Your task to perform on an android device: change the upload size in google photos Image 0: 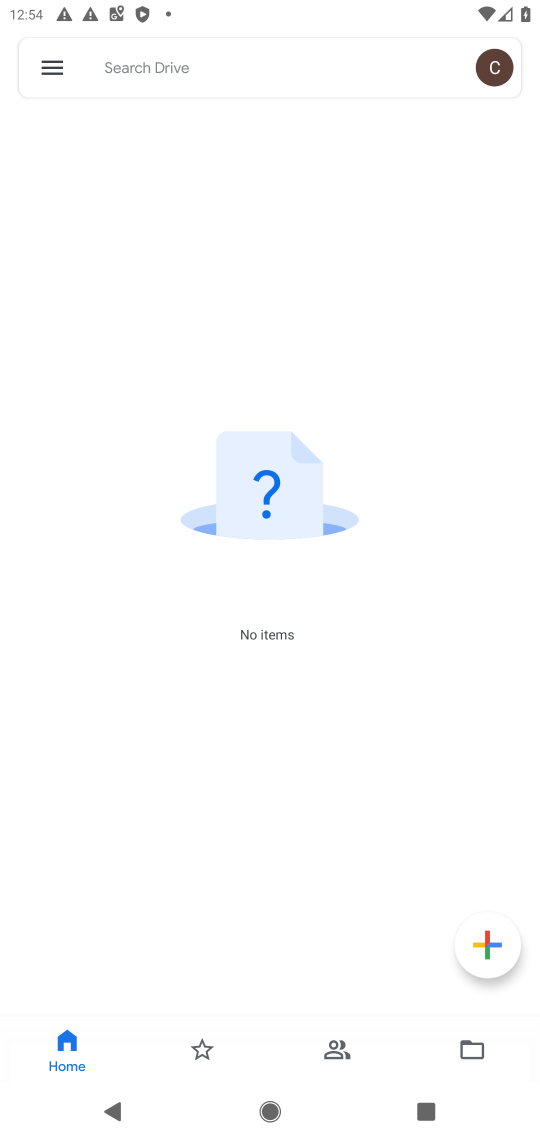
Step 0: press home button
Your task to perform on an android device: change the upload size in google photos Image 1: 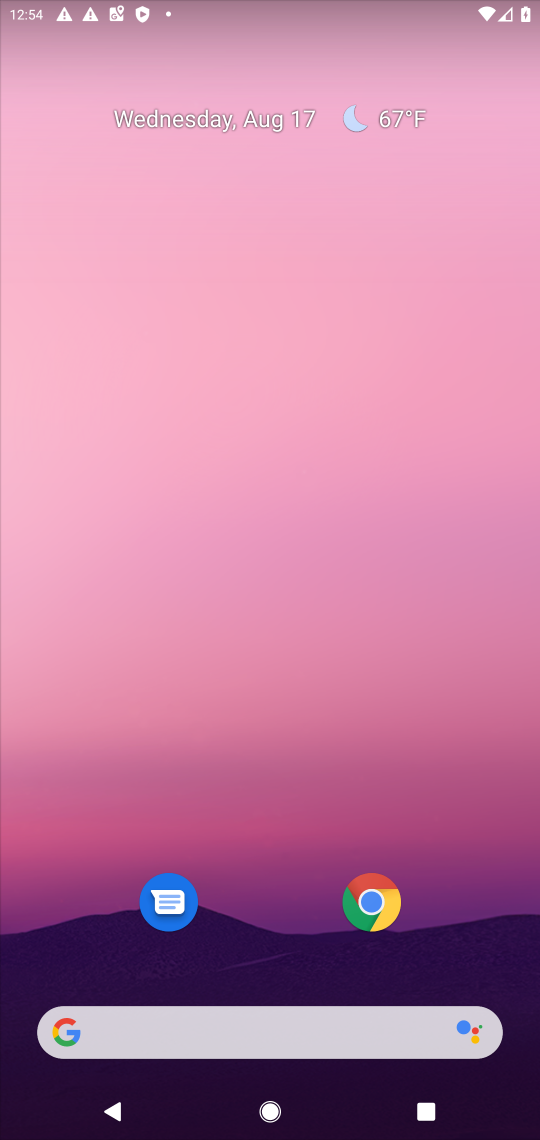
Step 1: drag from (241, 945) to (269, 89)
Your task to perform on an android device: change the upload size in google photos Image 2: 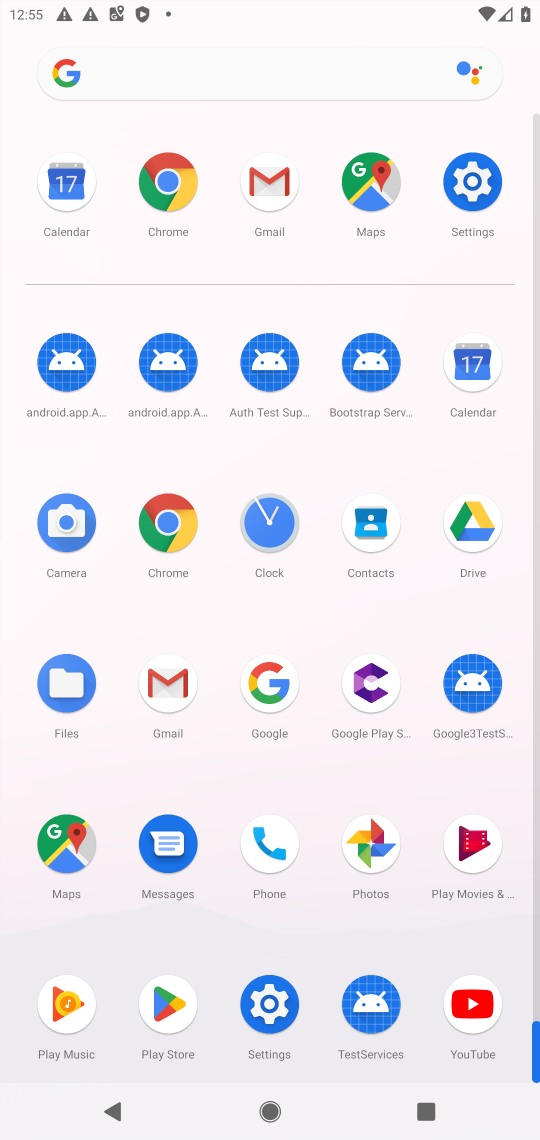
Step 2: click (370, 833)
Your task to perform on an android device: change the upload size in google photos Image 3: 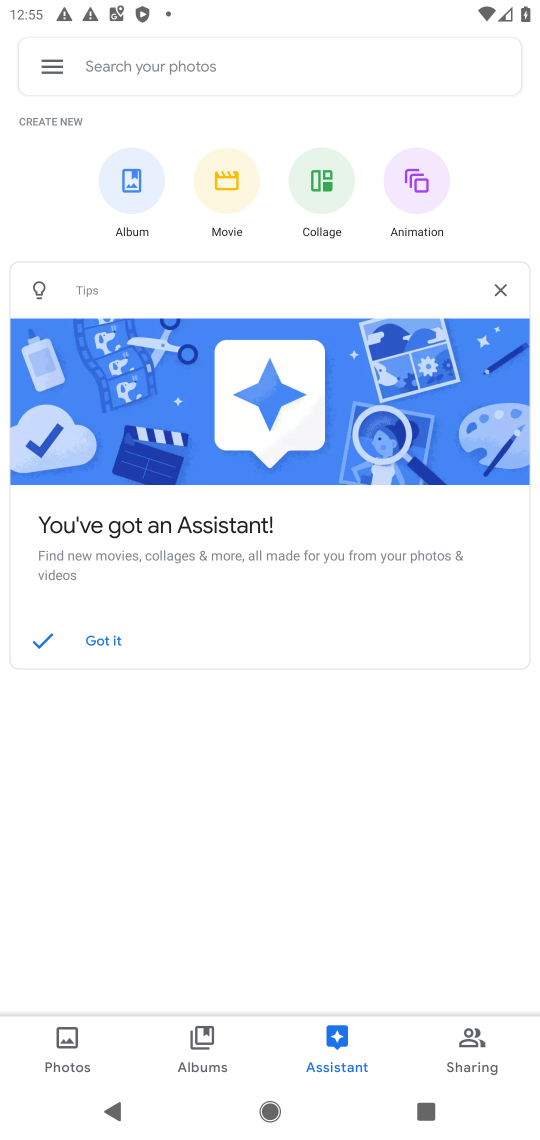
Step 3: click (72, 1034)
Your task to perform on an android device: change the upload size in google photos Image 4: 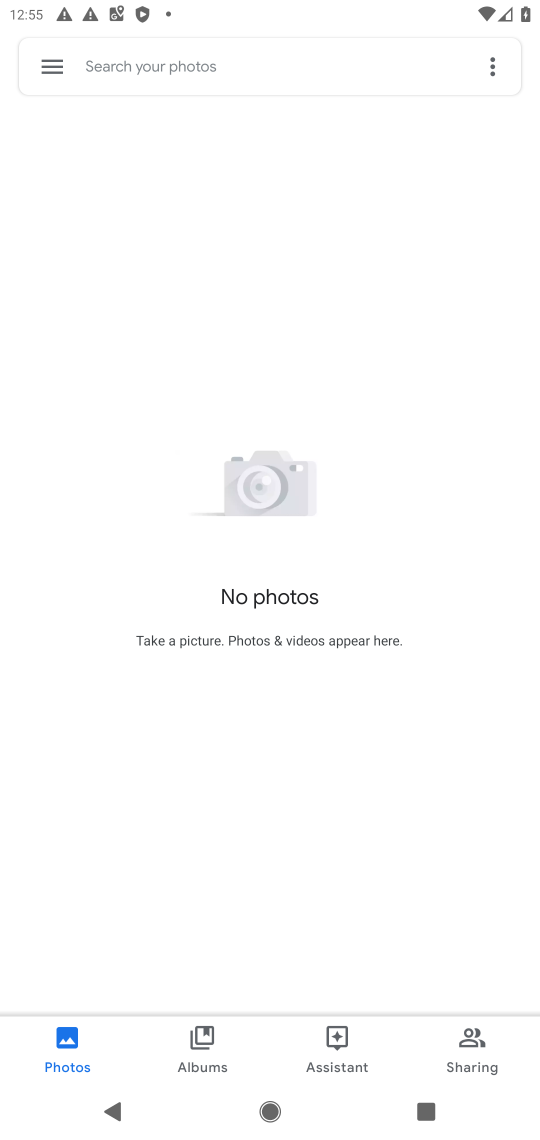
Step 4: click (60, 64)
Your task to perform on an android device: change the upload size in google photos Image 5: 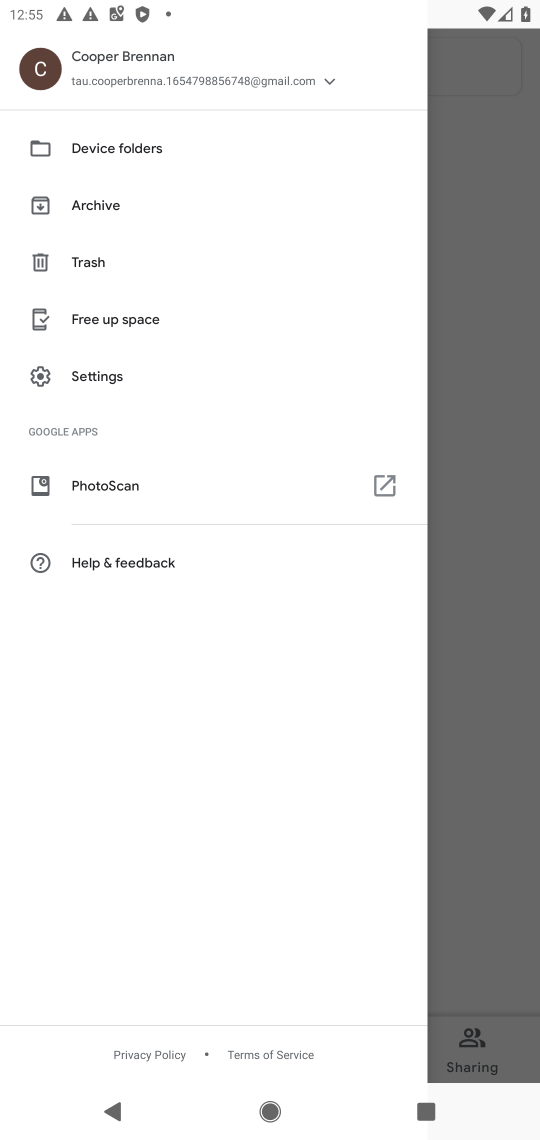
Step 5: click (119, 379)
Your task to perform on an android device: change the upload size in google photos Image 6: 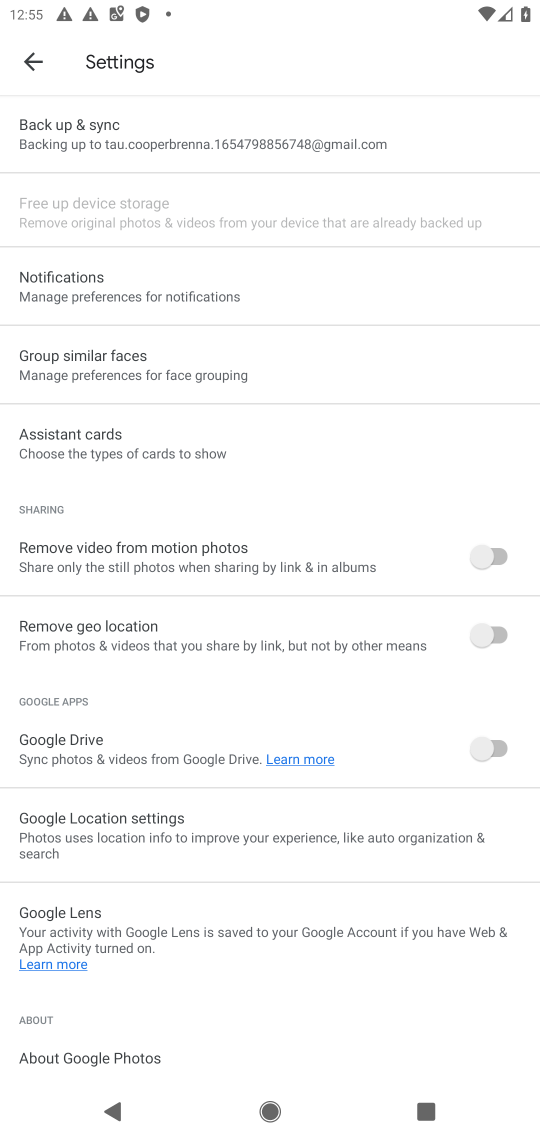
Step 6: click (127, 127)
Your task to perform on an android device: change the upload size in google photos Image 7: 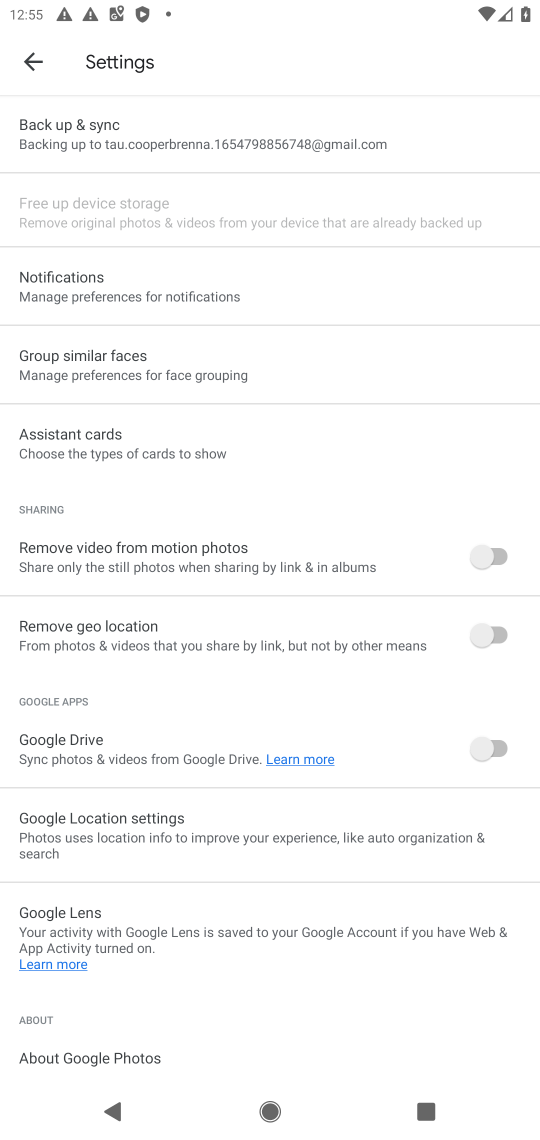
Step 7: click (127, 127)
Your task to perform on an android device: change the upload size in google photos Image 8: 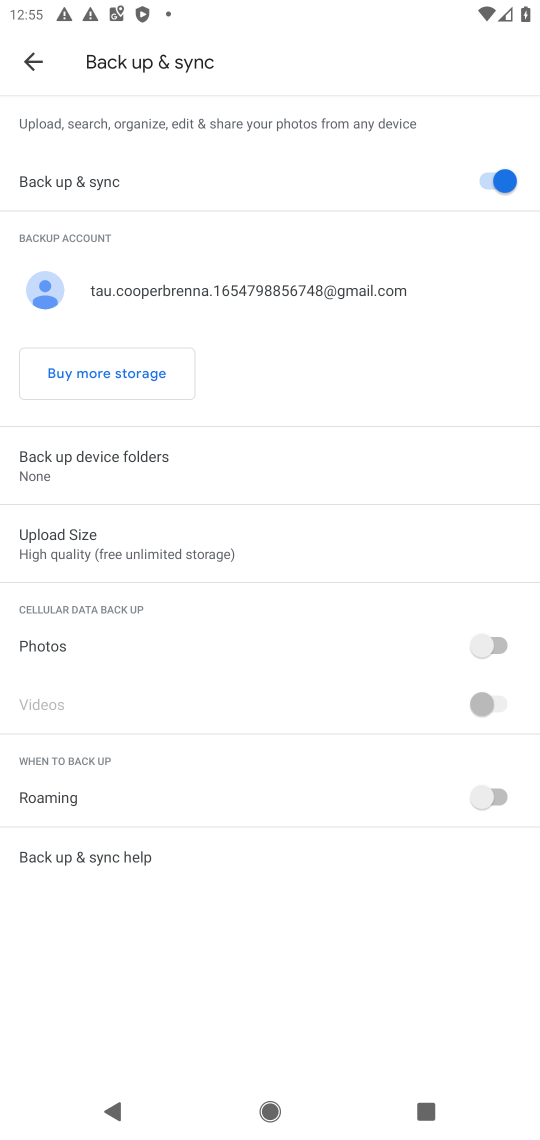
Step 8: click (168, 532)
Your task to perform on an android device: change the upload size in google photos Image 9: 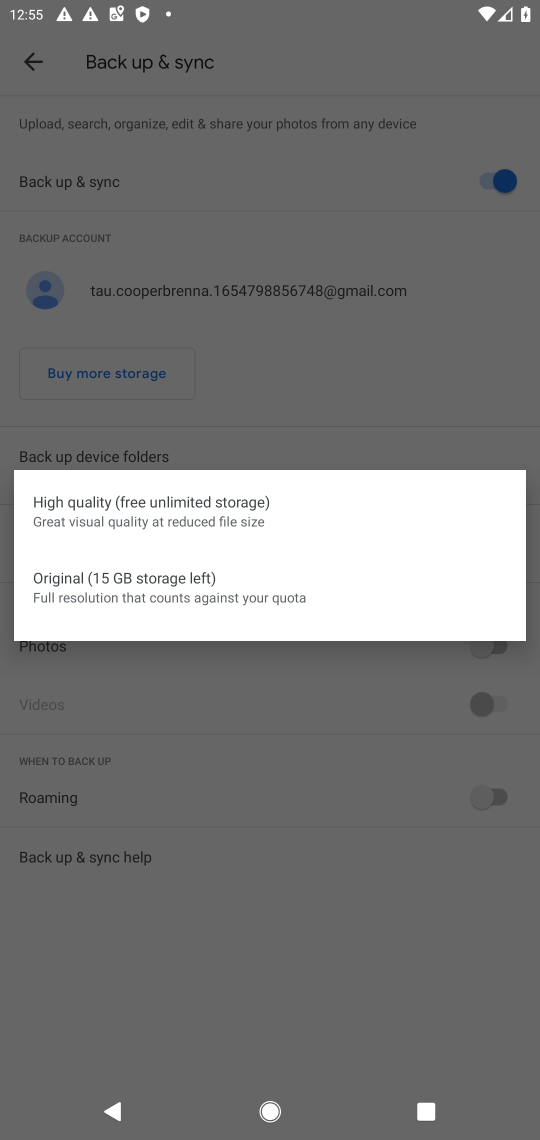
Step 9: click (109, 591)
Your task to perform on an android device: change the upload size in google photos Image 10: 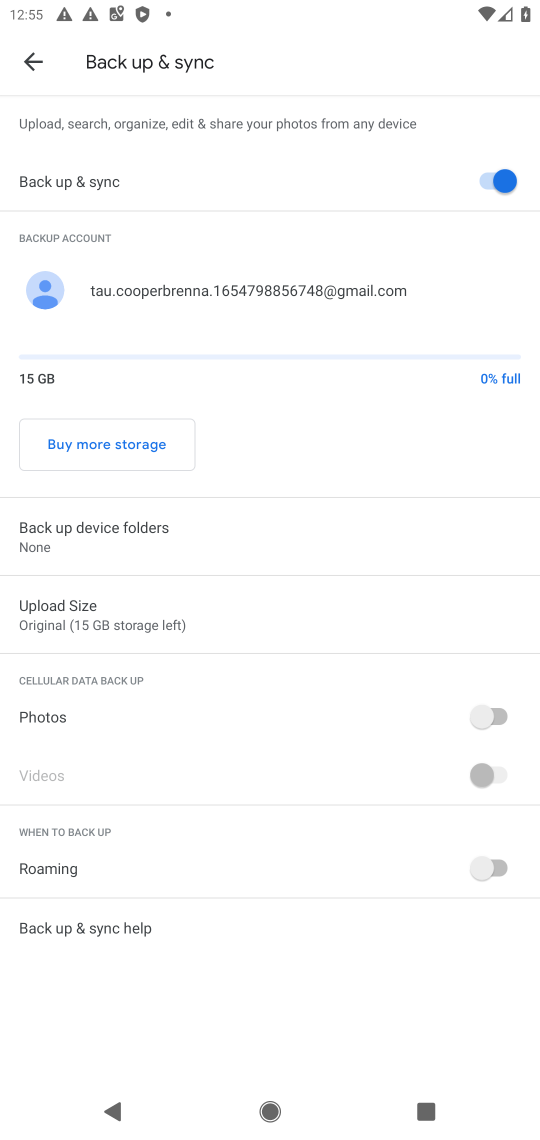
Step 10: task complete